Your task to perform on an android device: change the clock display to digital Image 0: 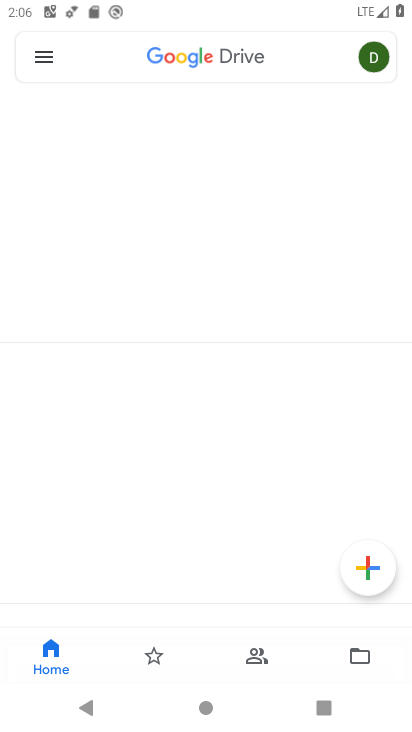
Step 0: drag from (283, 574) to (280, 270)
Your task to perform on an android device: change the clock display to digital Image 1: 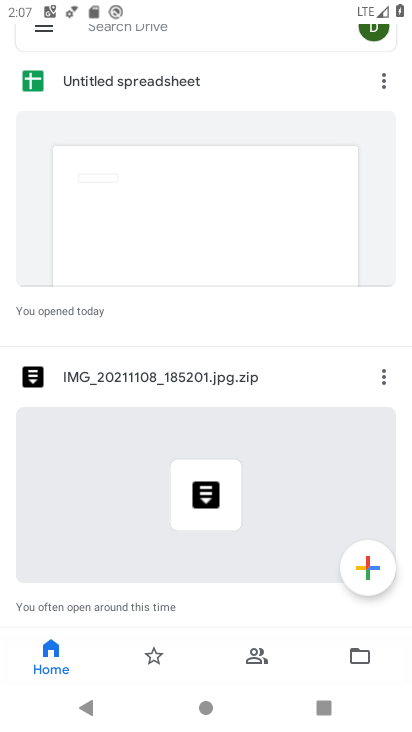
Step 1: press home button
Your task to perform on an android device: change the clock display to digital Image 2: 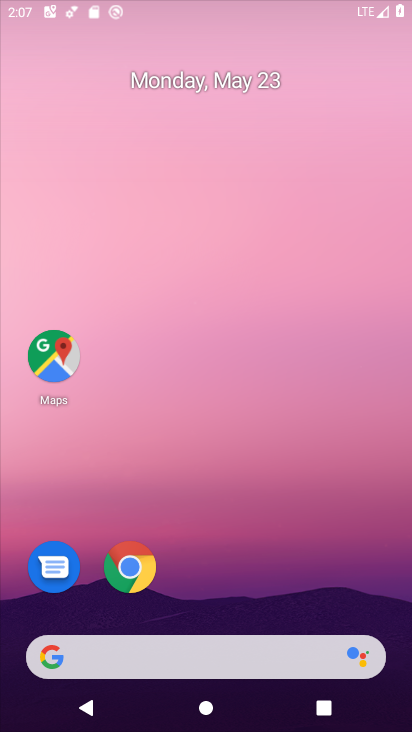
Step 2: drag from (284, 580) to (260, 243)
Your task to perform on an android device: change the clock display to digital Image 3: 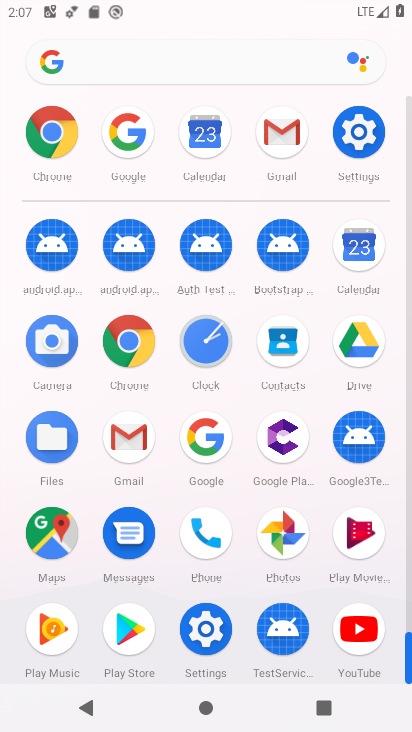
Step 3: click (212, 368)
Your task to perform on an android device: change the clock display to digital Image 4: 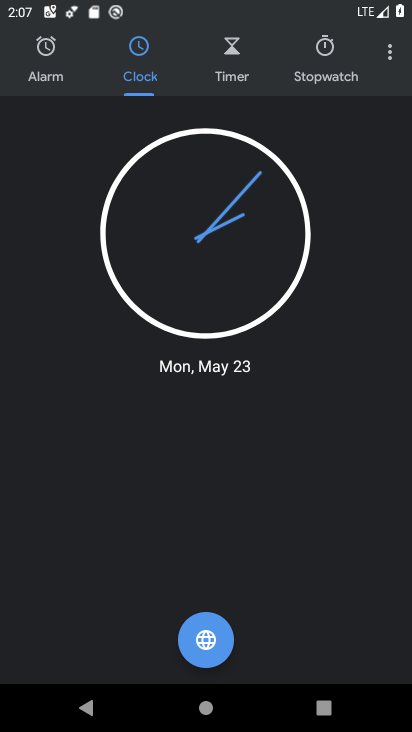
Step 4: click (383, 53)
Your task to perform on an android device: change the clock display to digital Image 5: 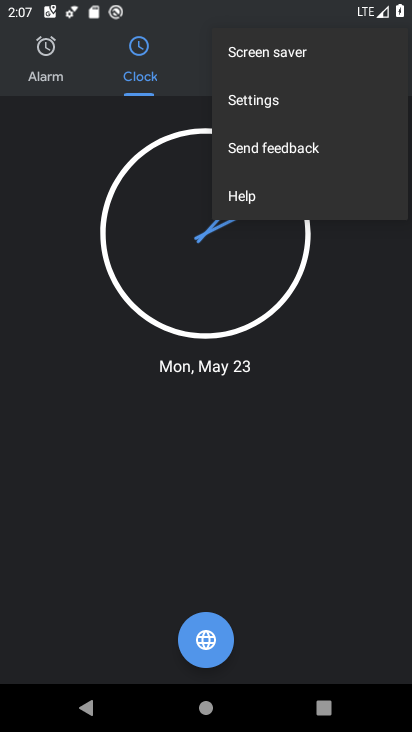
Step 5: click (300, 108)
Your task to perform on an android device: change the clock display to digital Image 6: 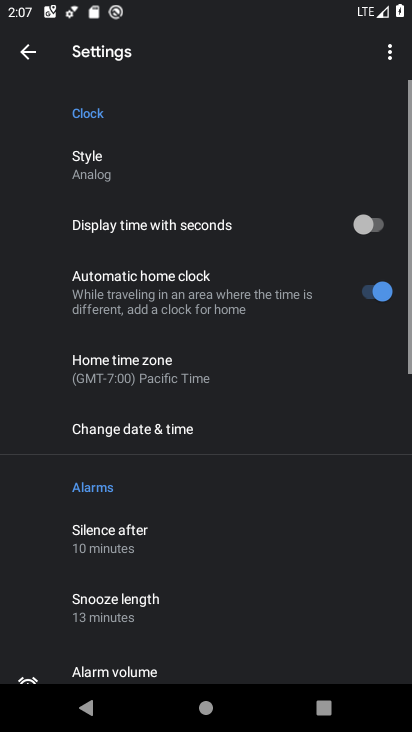
Step 6: click (152, 167)
Your task to perform on an android device: change the clock display to digital Image 7: 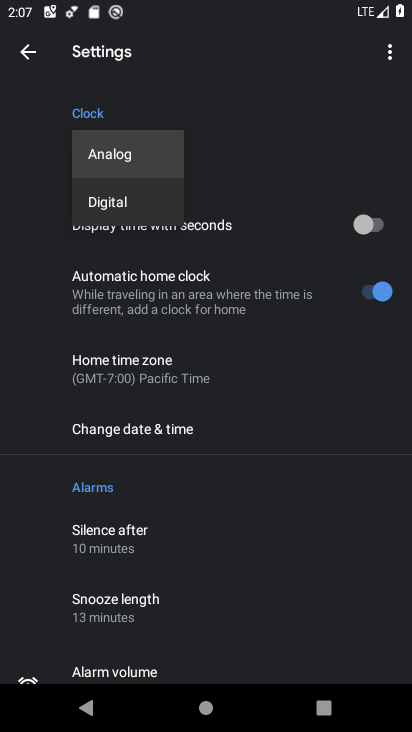
Step 7: click (149, 208)
Your task to perform on an android device: change the clock display to digital Image 8: 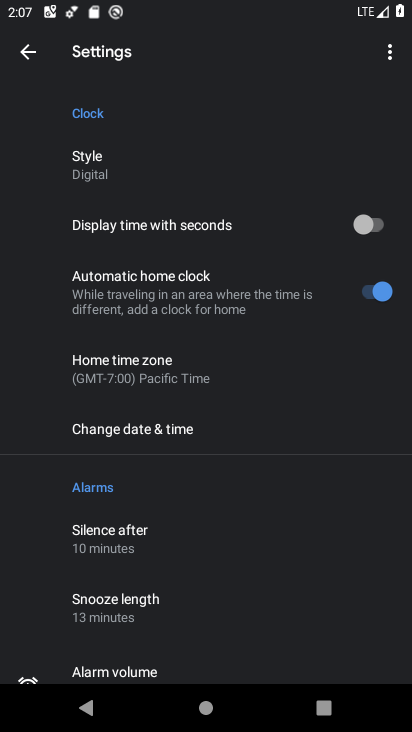
Step 8: task complete